Your task to perform on an android device: turn off notifications settings in the gmail app Image 0: 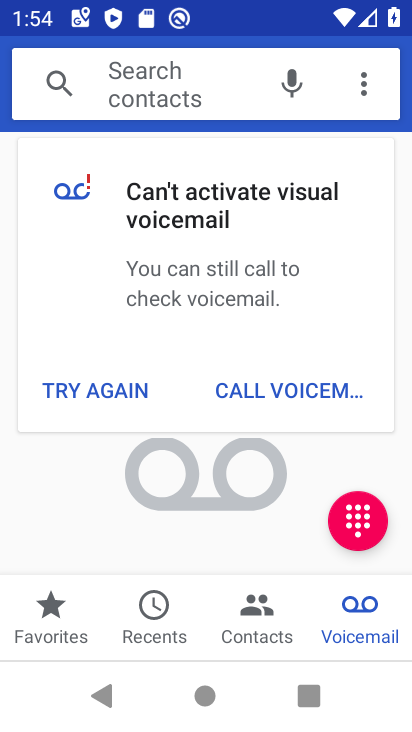
Step 0: task complete